Your task to perform on an android device: show emergency info Image 0: 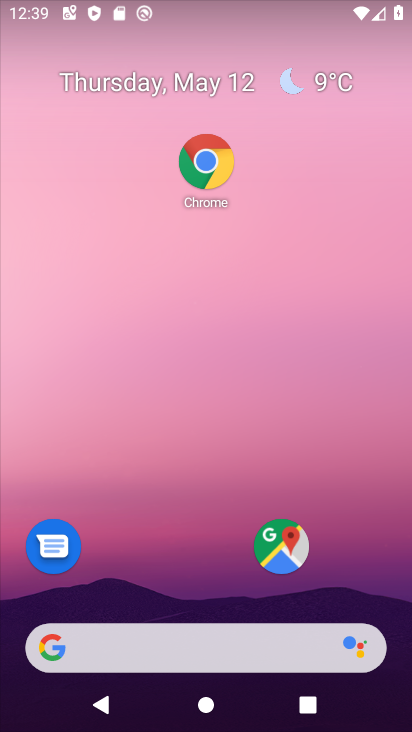
Step 0: drag from (216, 558) to (232, 3)
Your task to perform on an android device: show emergency info Image 1: 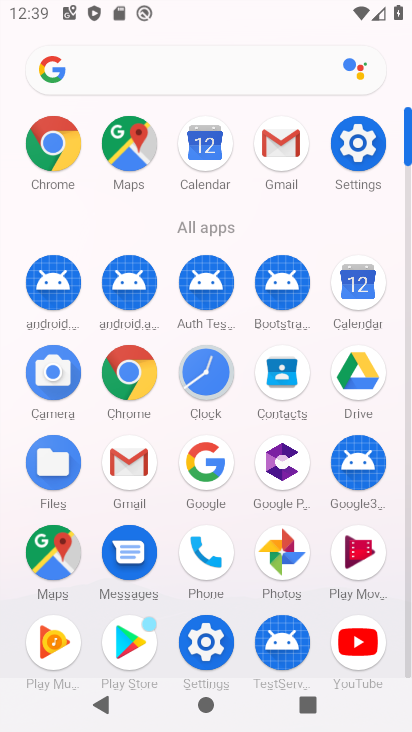
Step 1: click (344, 182)
Your task to perform on an android device: show emergency info Image 2: 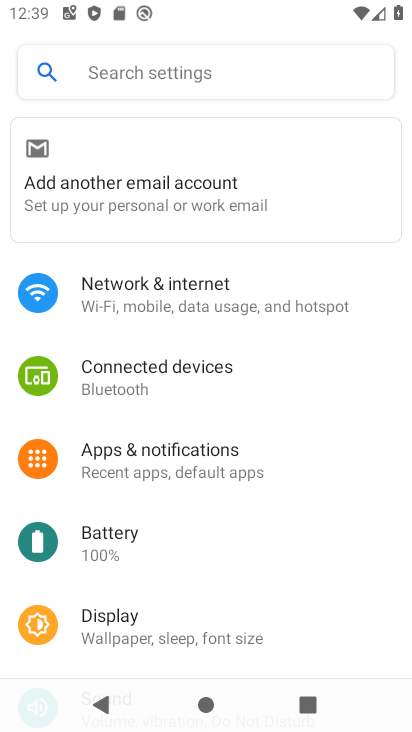
Step 2: click (141, 79)
Your task to perform on an android device: show emergency info Image 3: 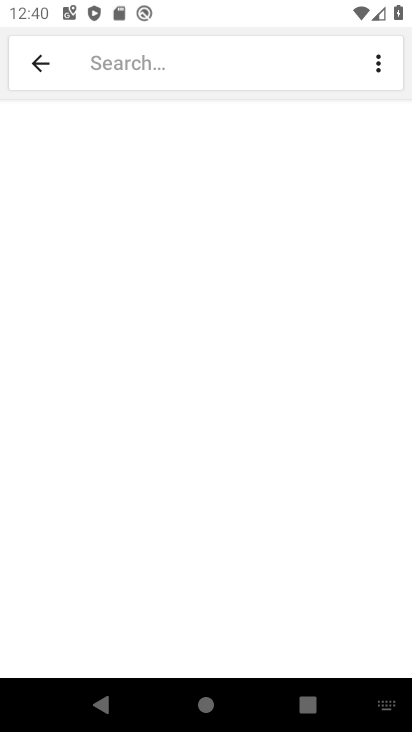
Step 3: type "emergency info"
Your task to perform on an android device: show emergency info Image 4: 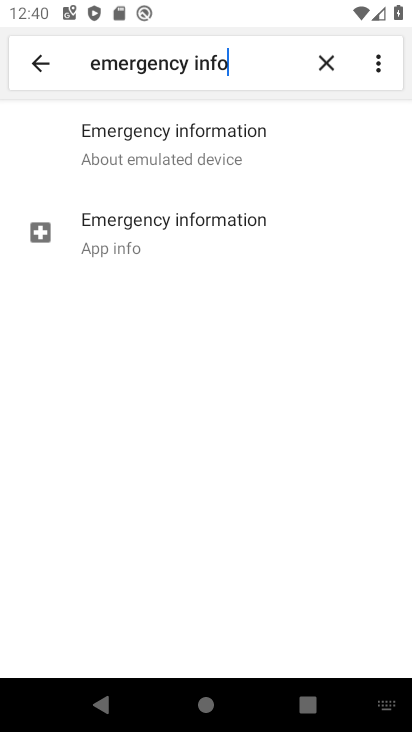
Step 4: click (157, 242)
Your task to perform on an android device: show emergency info Image 5: 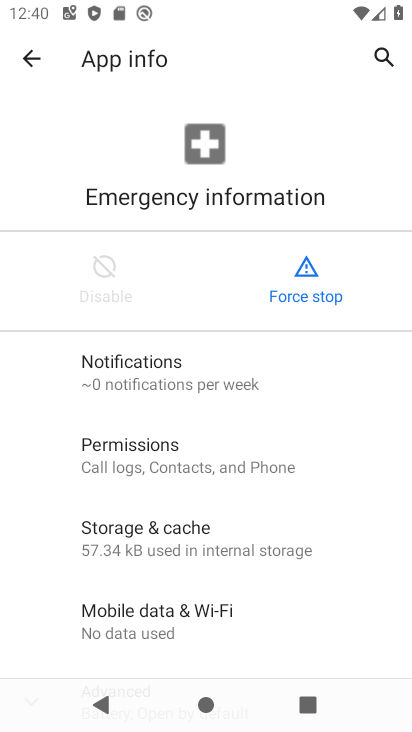
Step 5: task complete